Your task to perform on an android device: change the clock style Image 0: 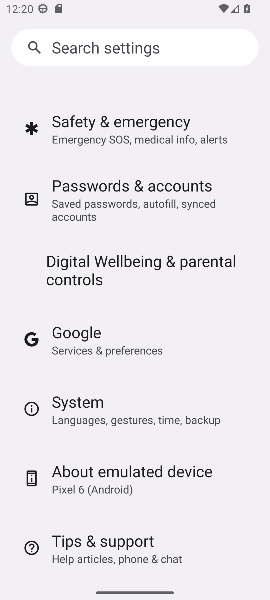
Step 0: press home button
Your task to perform on an android device: change the clock style Image 1: 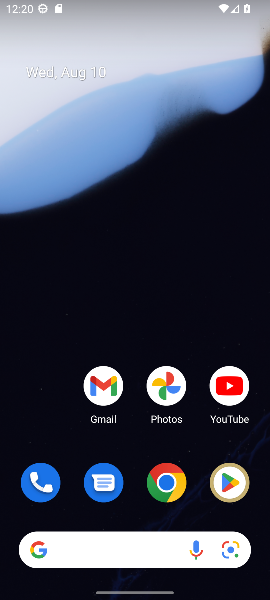
Step 1: task complete